Your task to perform on an android device: add a contact in the contacts app Image 0: 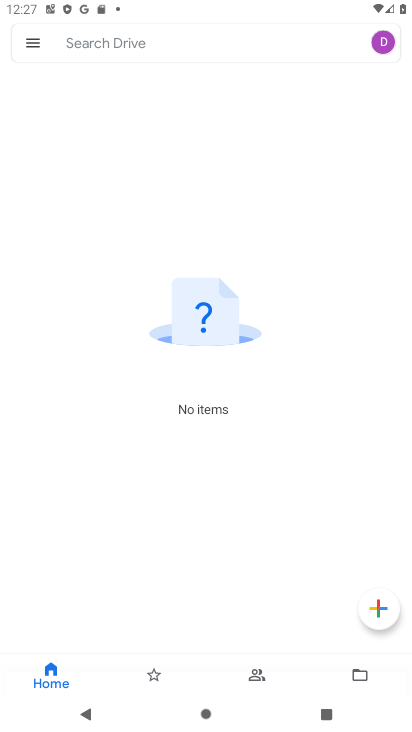
Step 0: press home button
Your task to perform on an android device: add a contact in the contacts app Image 1: 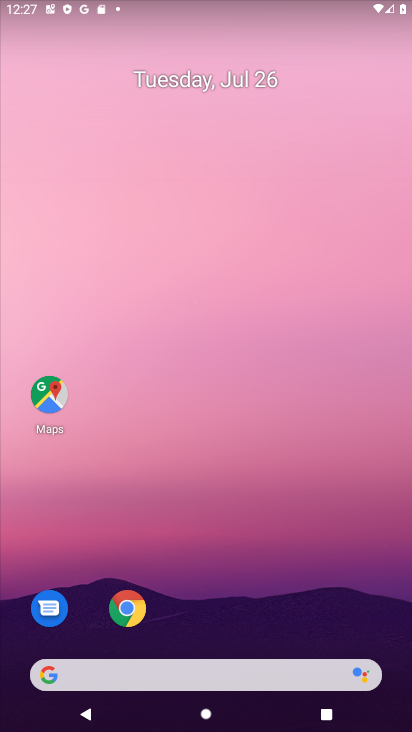
Step 1: drag from (178, 600) to (240, 49)
Your task to perform on an android device: add a contact in the contacts app Image 2: 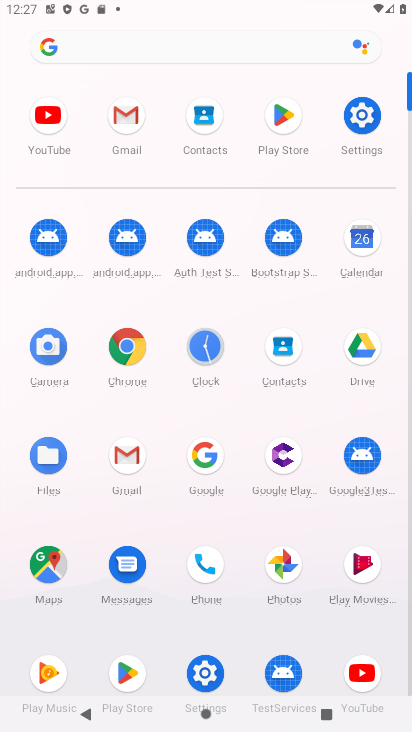
Step 2: click (272, 405)
Your task to perform on an android device: add a contact in the contacts app Image 3: 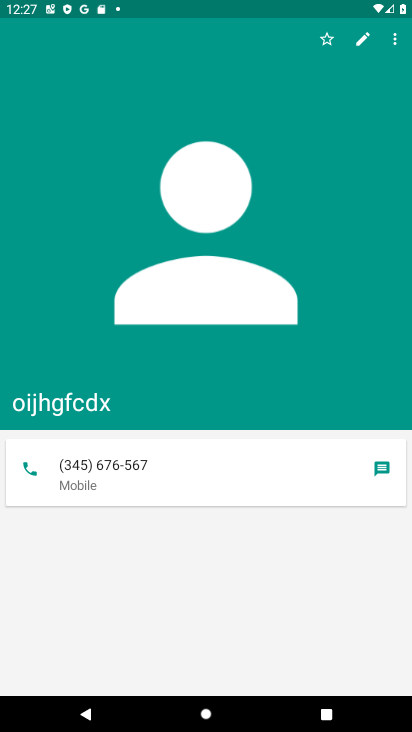
Step 3: press back button
Your task to perform on an android device: add a contact in the contacts app Image 4: 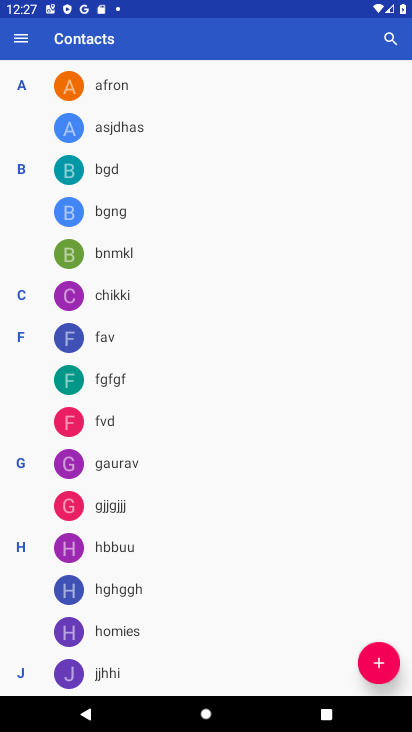
Step 4: click (377, 664)
Your task to perform on an android device: add a contact in the contacts app Image 5: 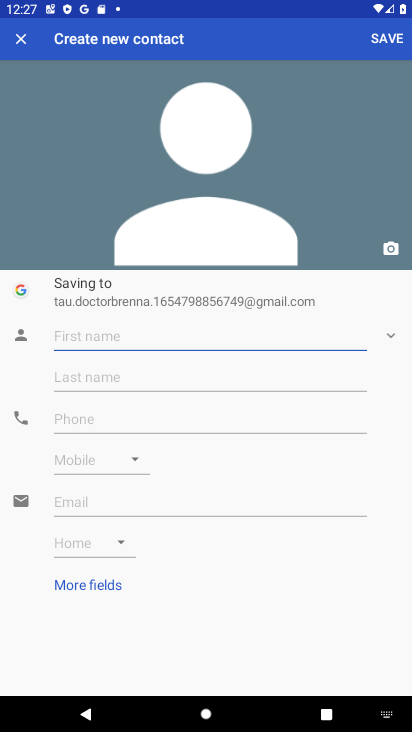
Step 5: type "kjhj"
Your task to perform on an android device: add a contact in the contacts app Image 6: 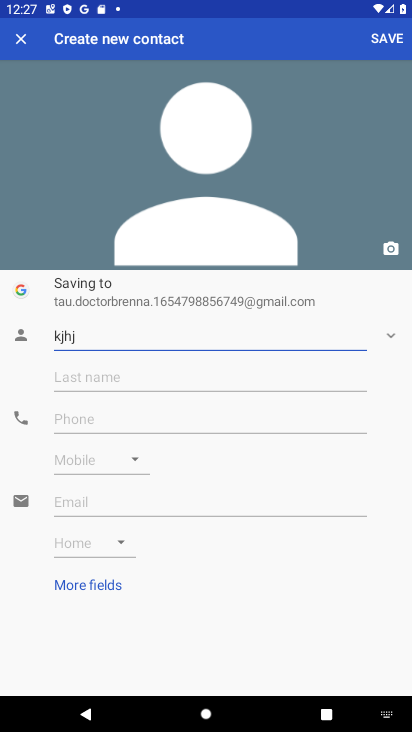
Step 6: click (247, 400)
Your task to perform on an android device: add a contact in the contacts app Image 7: 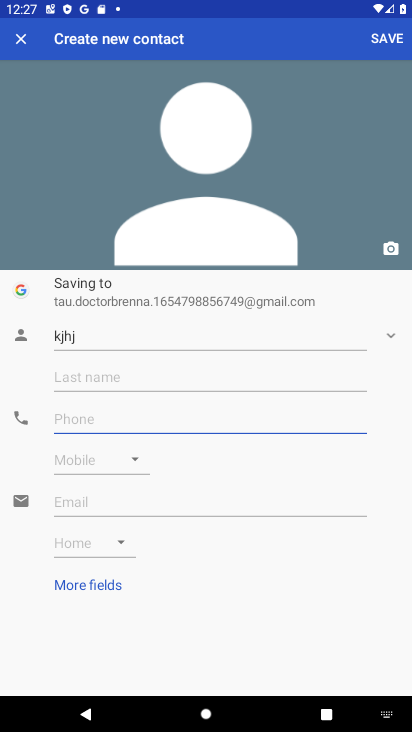
Step 7: type "6544567"
Your task to perform on an android device: add a contact in the contacts app Image 8: 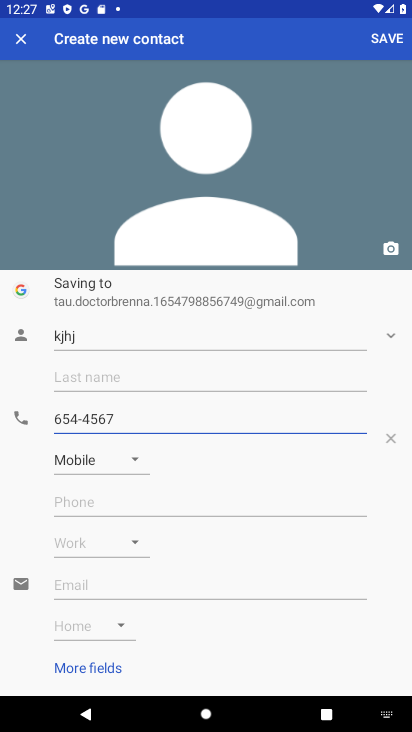
Step 8: click (389, 37)
Your task to perform on an android device: add a contact in the contacts app Image 9: 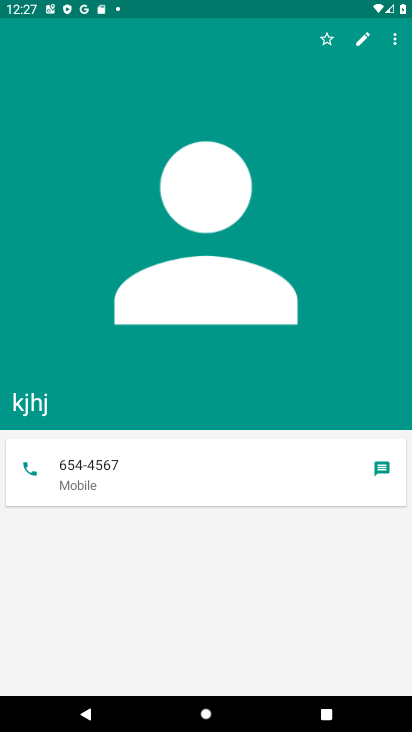
Step 9: task complete